Your task to perform on an android device: Search for Italian restaurants on Maps Image 0: 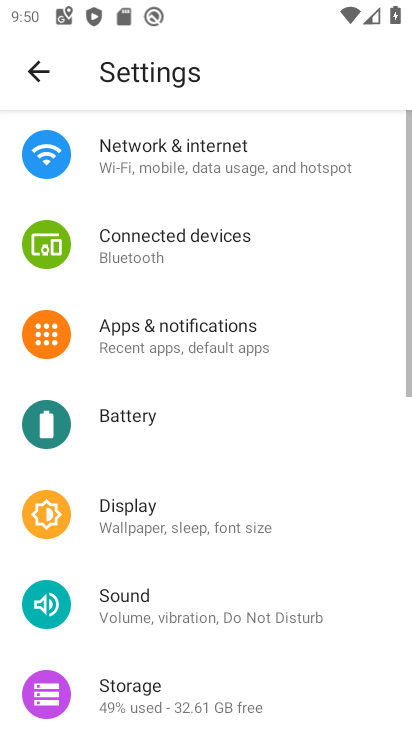
Step 0: press home button
Your task to perform on an android device: Search for Italian restaurants on Maps Image 1: 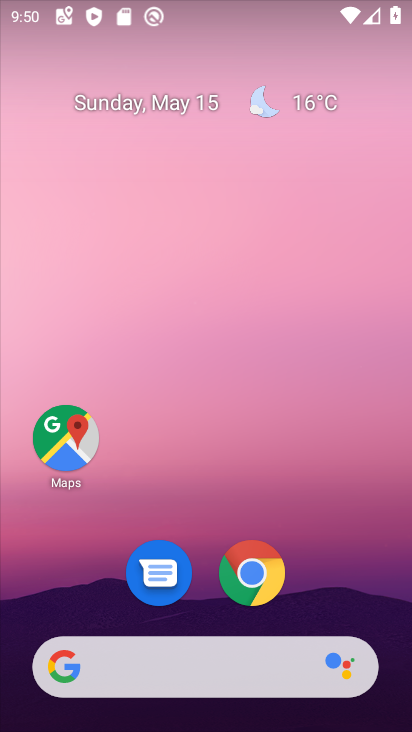
Step 1: click (256, 589)
Your task to perform on an android device: Search for Italian restaurants on Maps Image 2: 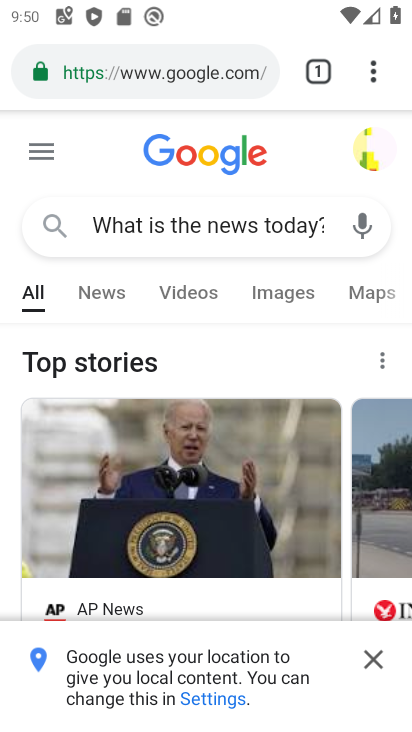
Step 2: press home button
Your task to perform on an android device: Search for Italian restaurants on Maps Image 3: 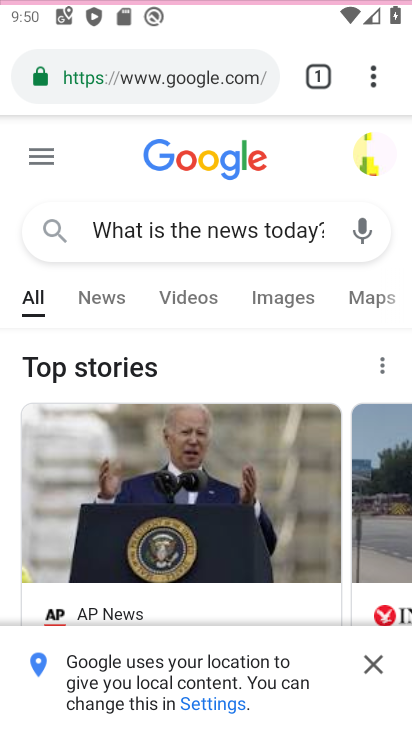
Step 3: press home button
Your task to perform on an android device: Search for Italian restaurants on Maps Image 4: 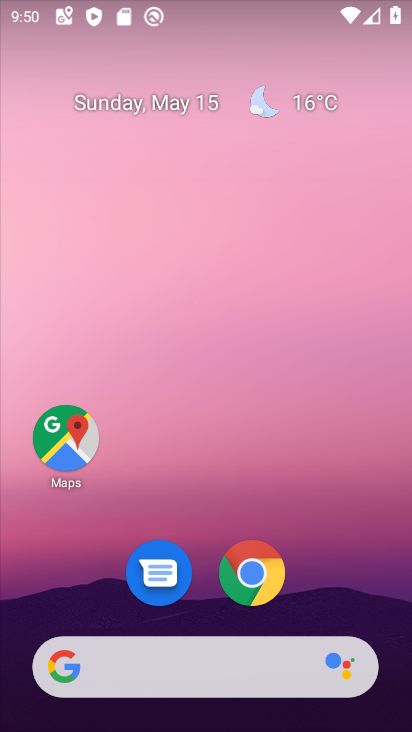
Step 4: click (71, 384)
Your task to perform on an android device: Search for Italian restaurants on Maps Image 5: 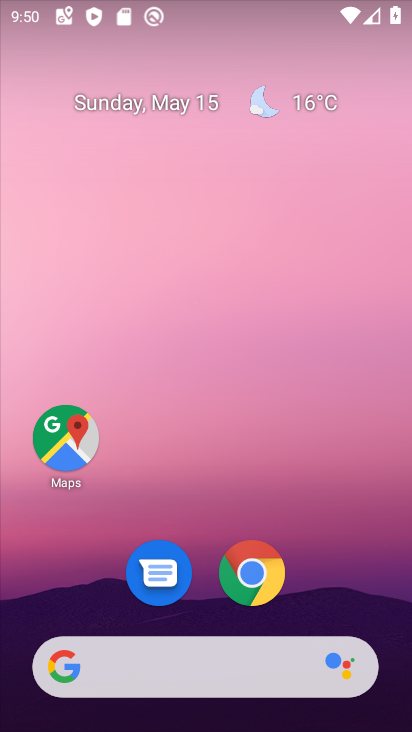
Step 5: click (66, 433)
Your task to perform on an android device: Search for Italian restaurants on Maps Image 6: 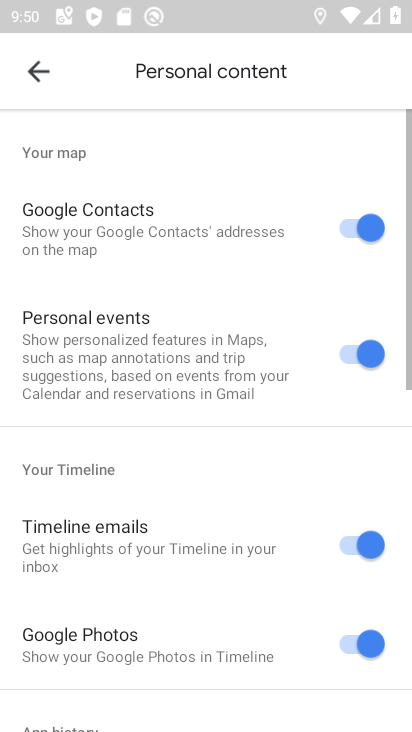
Step 6: click (38, 72)
Your task to perform on an android device: Search for Italian restaurants on Maps Image 7: 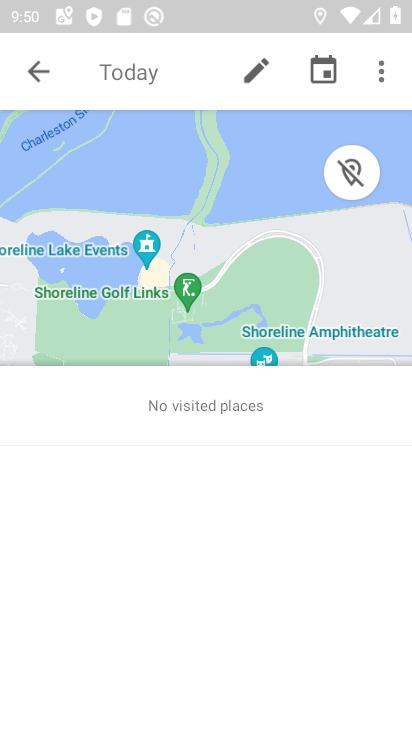
Step 7: click (38, 72)
Your task to perform on an android device: Search for Italian restaurants on Maps Image 8: 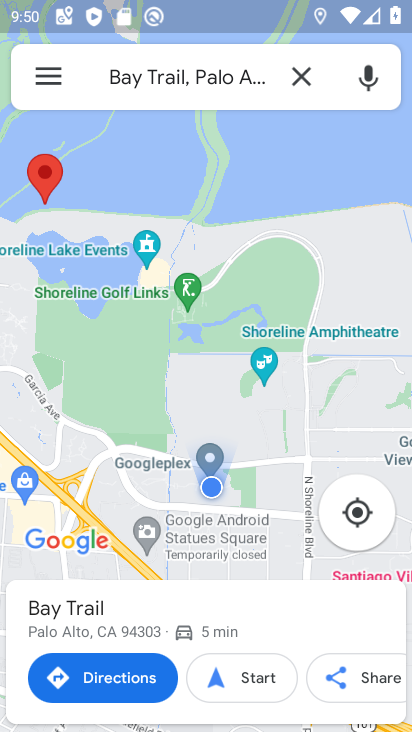
Step 8: click (310, 83)
Your task to perform on an android device: Search for Italian restaurants on Maps Image 9: 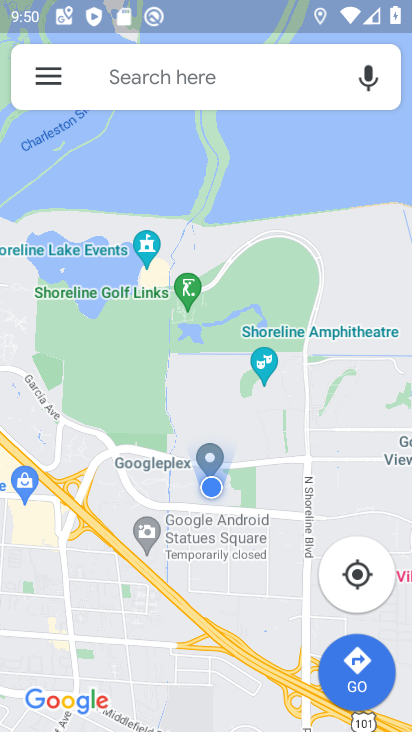
Step 9: click (247, 80)
Your task to perform on an android device: Search for Italian restaurants on Maps Image 10: 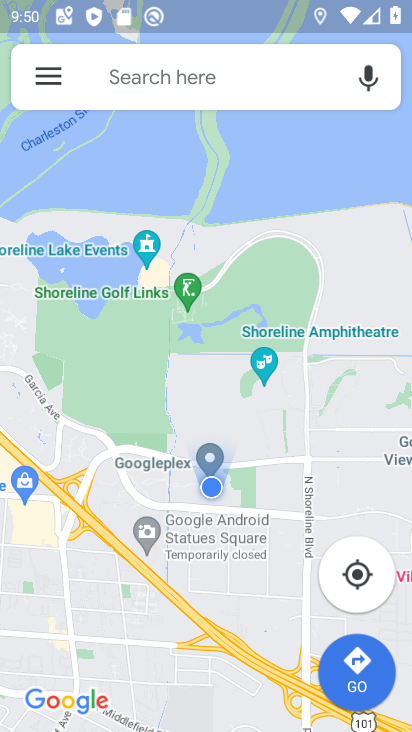
Step 10: click (247, 80)
Your task to perform on an android device: Search for Italian restaurants on Maps Image 11: 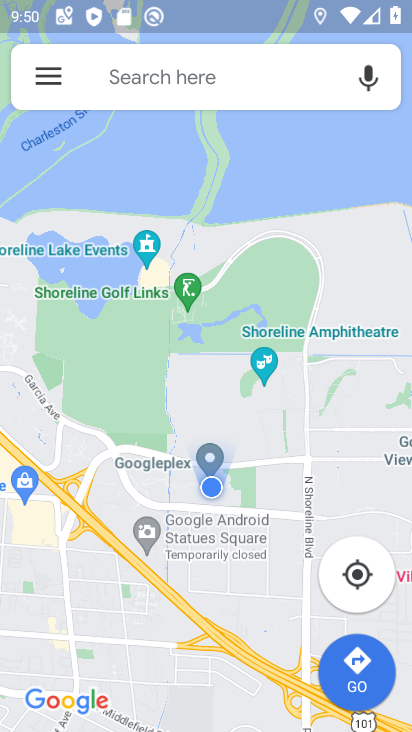
Step 11: click (247, 80)
Your task to perform on an android device: Search for Italian restaurants on Maps Image 12: 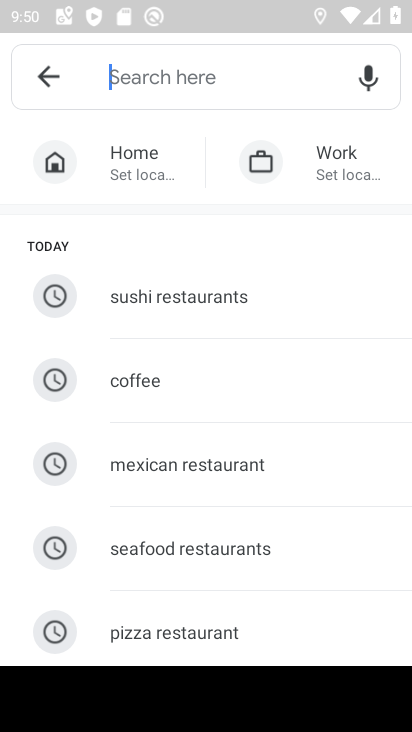
Step 12: type "Italian restaurants"
Your task to perform on an android device: Search for Italian restaurants on Maps Image 13: 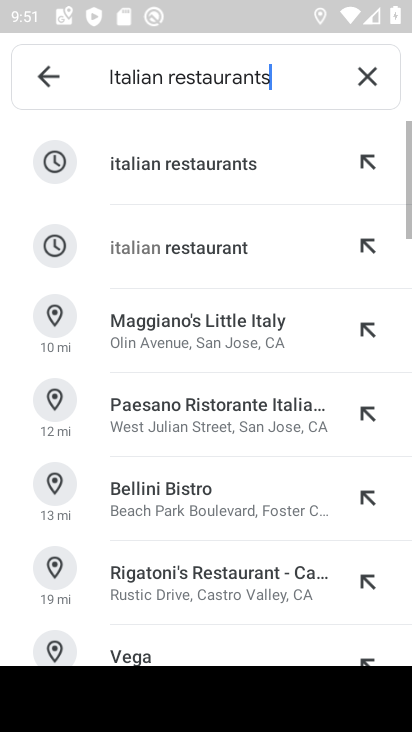
Step 13: click (196, 171)
Your task to perform on an android device: Search for Italian restaurants on Maps Image 14: 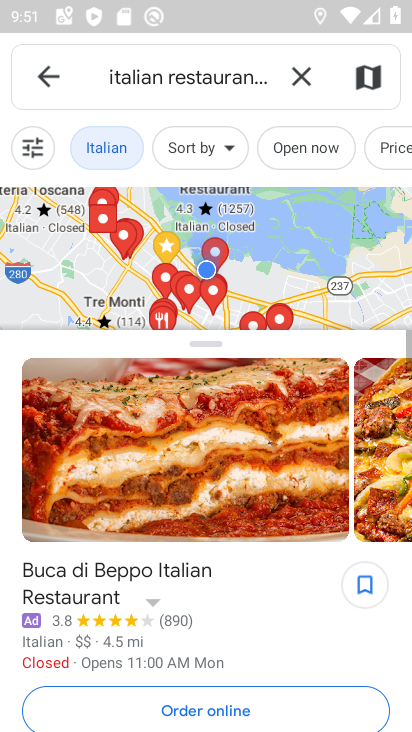
Step 14: task complete